Your task to perform on an android device: Search for "logitech g933" on bestbuy, select the first entry, and add it to the cart. Image 0: 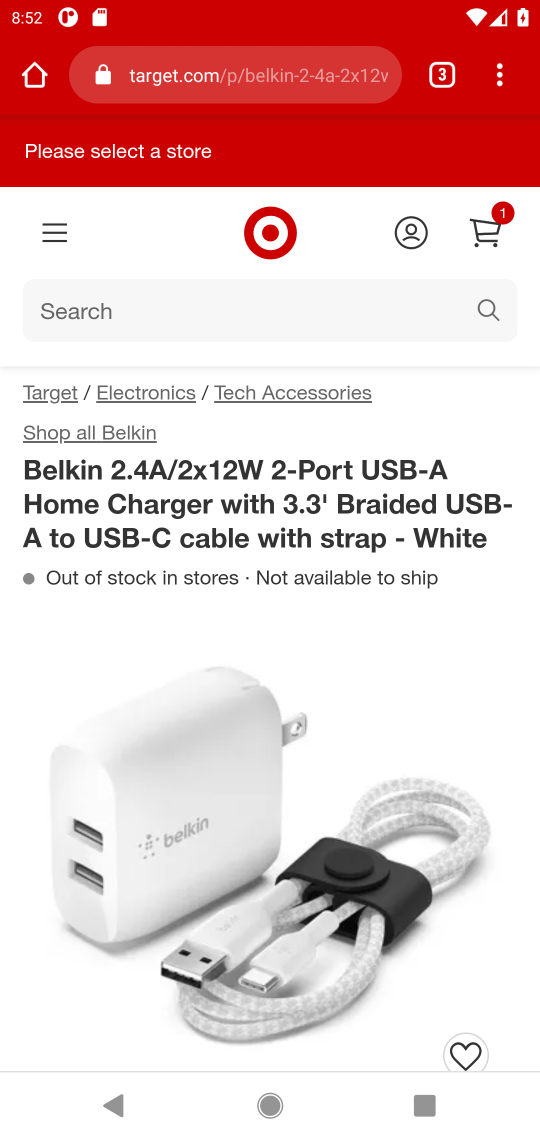
Step 0: press home button
Your task to perform on an android device: Search for "logitech g933" on bestbuy, select the first entry, and add it to the cart. Image 1: 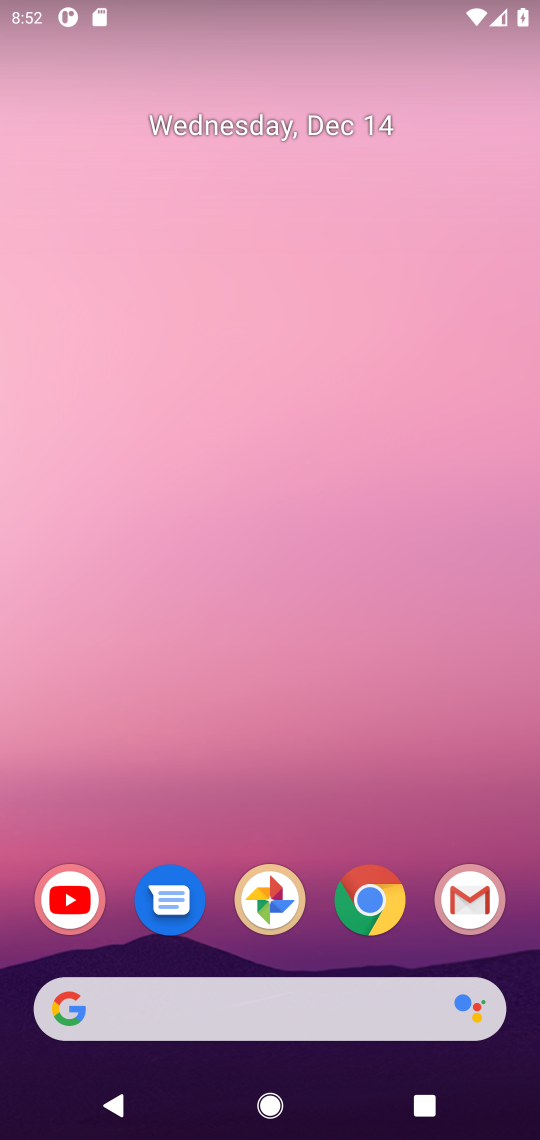
Step 1: click (271, 983)
Your task to perform on an android device: Search for "logitech g933" on bestbuy, select the first entry, and add it to the cart. Image 2: 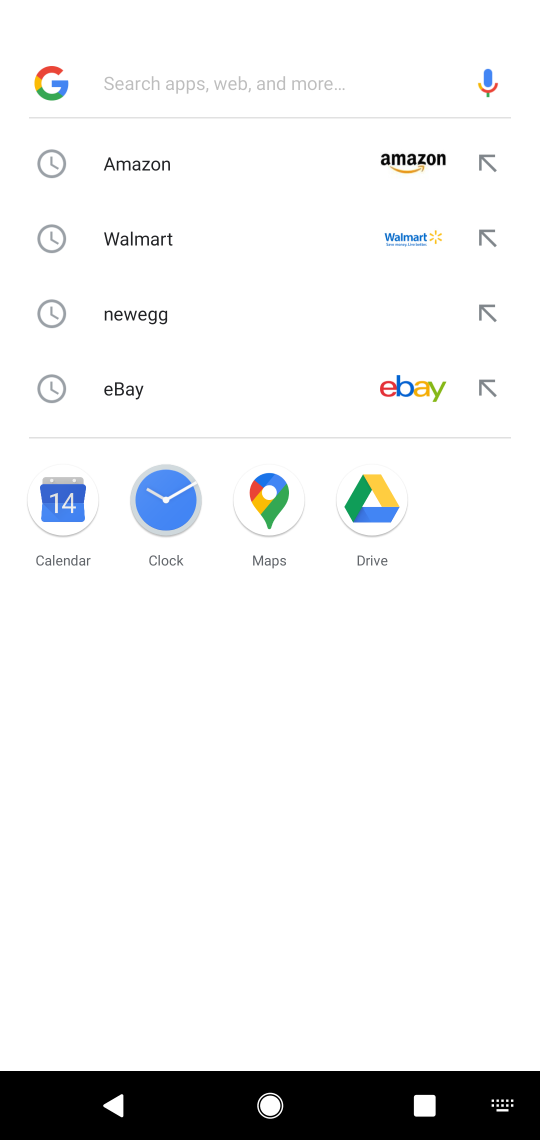
Step 2: type "bestbuy"
Your task to perform on an android device: Search for "logitech g933" on bestbuy, select the first entry, and add it to the cart. Image 3: 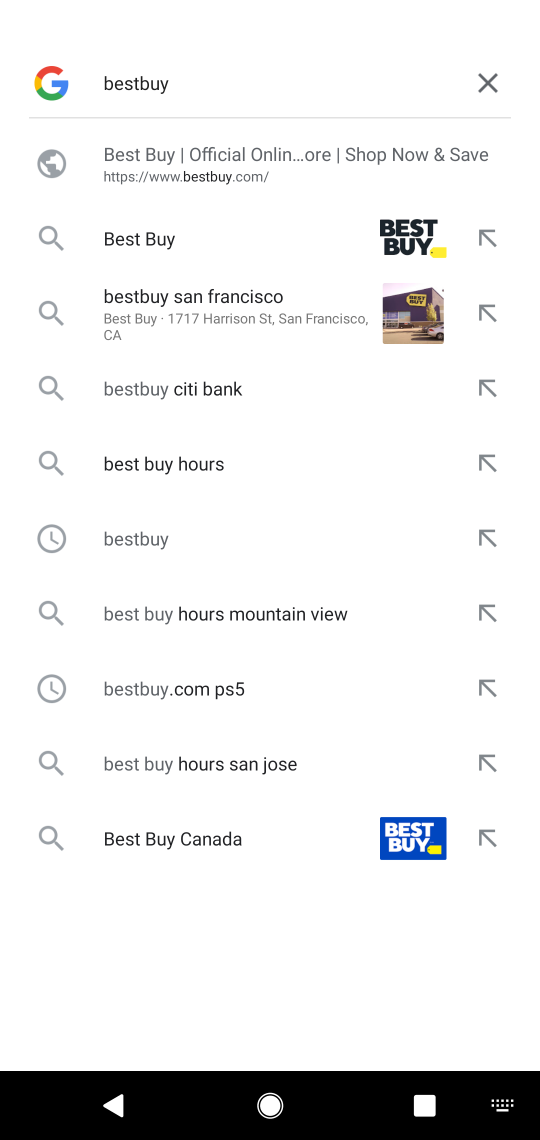
Step 3: type ""
Your task to perform on an android device: Search for "logitech g933" on bestbuy, select the first entry, and add it to the cart. Image 4: 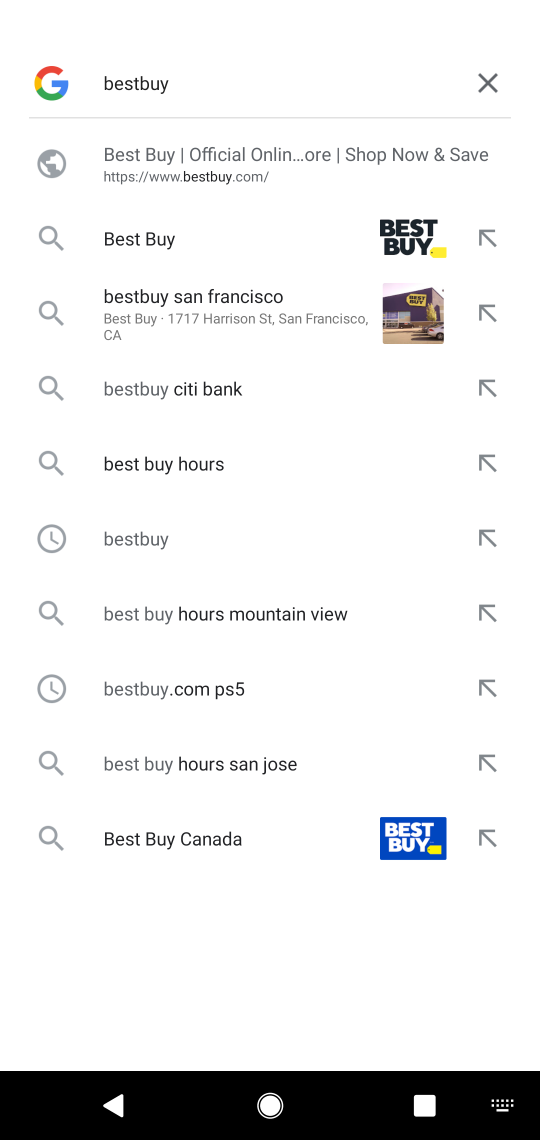
Step 4: click (184, 256)
Your task to perform on an android device: Search for "logitech g933" on bestbuy, select the first entry, and add it to the cart. Image 5: 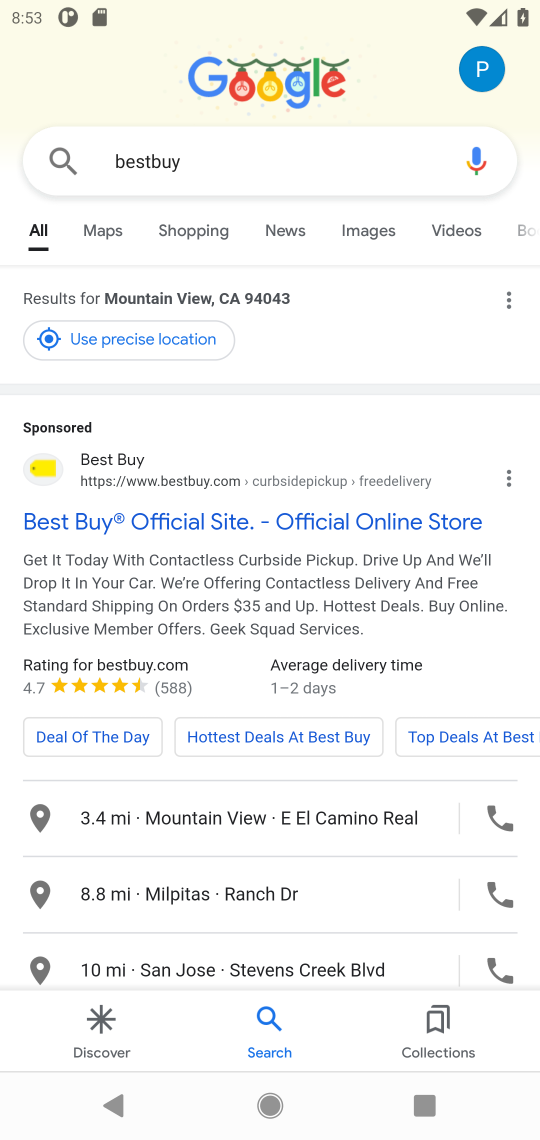
Step 5: click (116, 505)
Your task to perform on an android device: Search for "logitech g933" on bestbuy, select the first entry, and add it to the cart. Image 6: 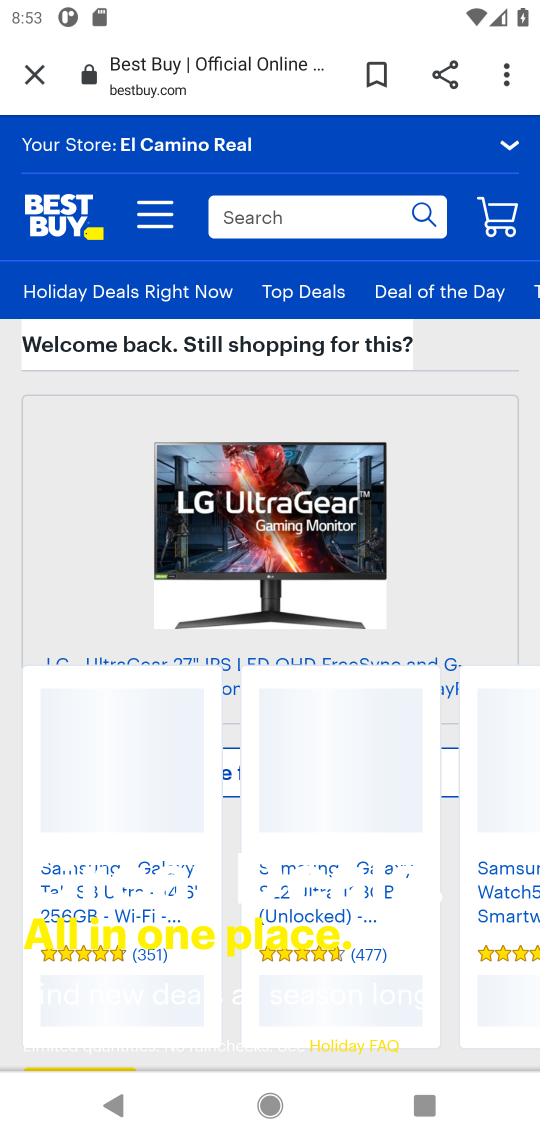
Step 6: click (283, 235)
Your task to perform on an android device: Search for "logitech g933" on bestbuy, select the first entry, and add it to the cart. Image 7: 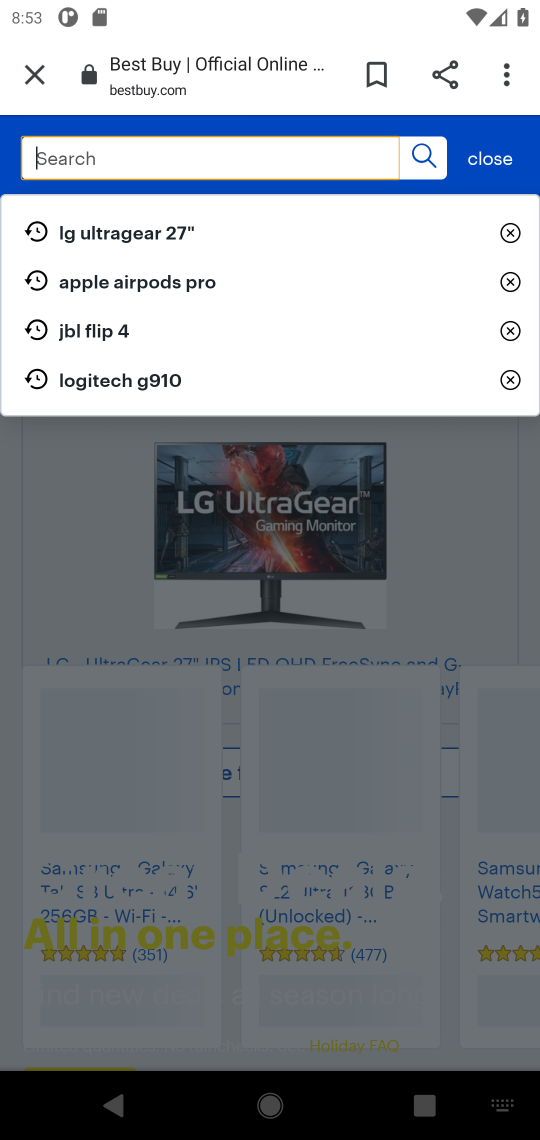
Step 7: type "logitech g933"
Your task to perform on an android device: Search for "logitech g933" on bestbuy, select the first entry, and add it to the cart. Image 8: 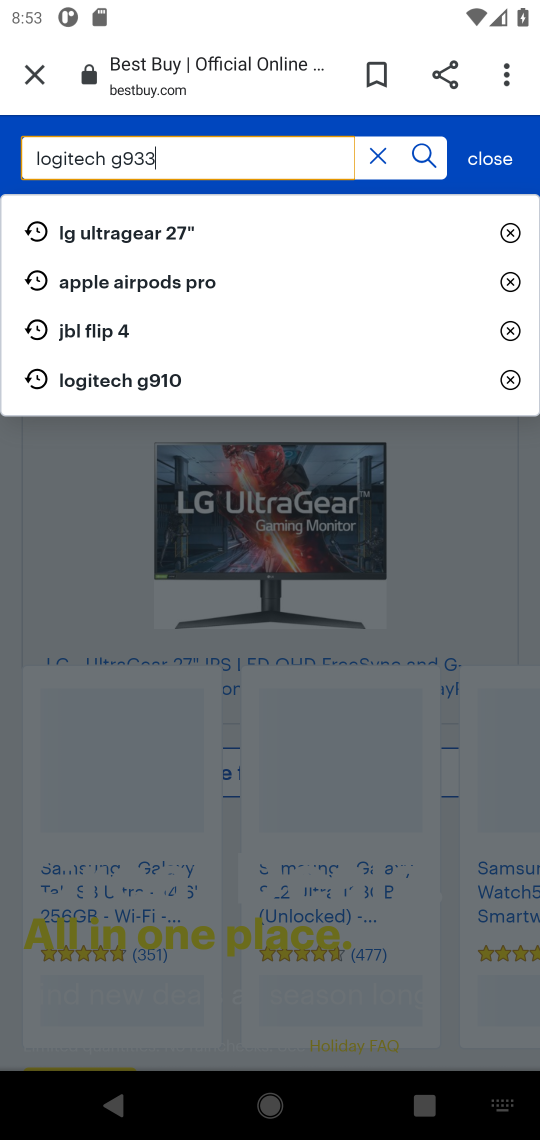
Step 8: type ""
Your task to perform on an android device: Search for "logitech g933" on bestbuy, select the first entry, and add it to the cart. Image 9: 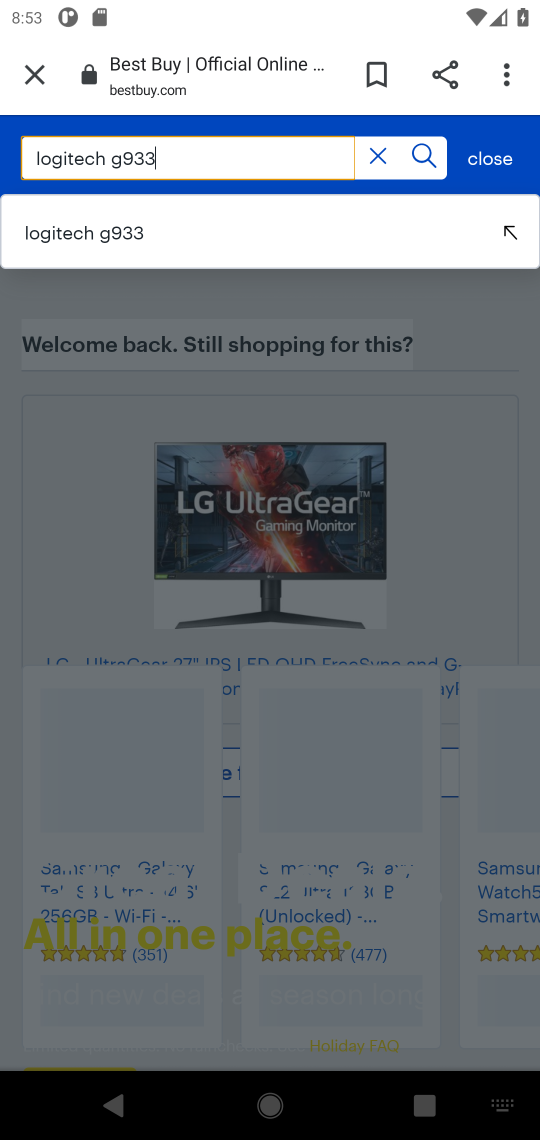
Step 9: click (195, 231)
Your task to perform on an android device: Search for "logitech g933" on bestbuy, select the first entry, and add it to the cart. Image 10: 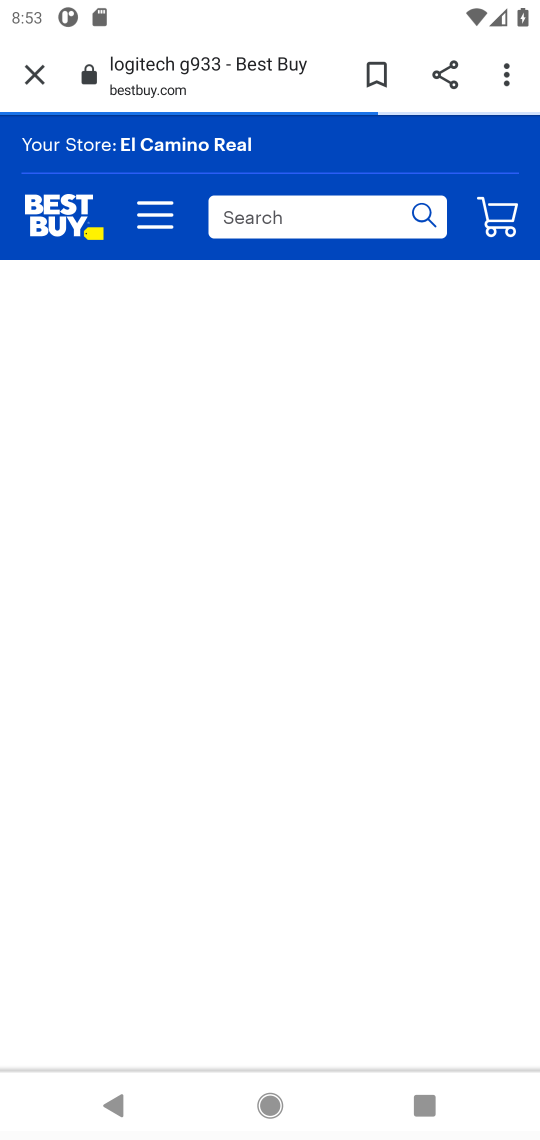
Step 10: click (422, 172)
Your task to perform on an android device: Search for "logitech g933" on bestbuy, select the first entry, and add it to the cart. Image 11: 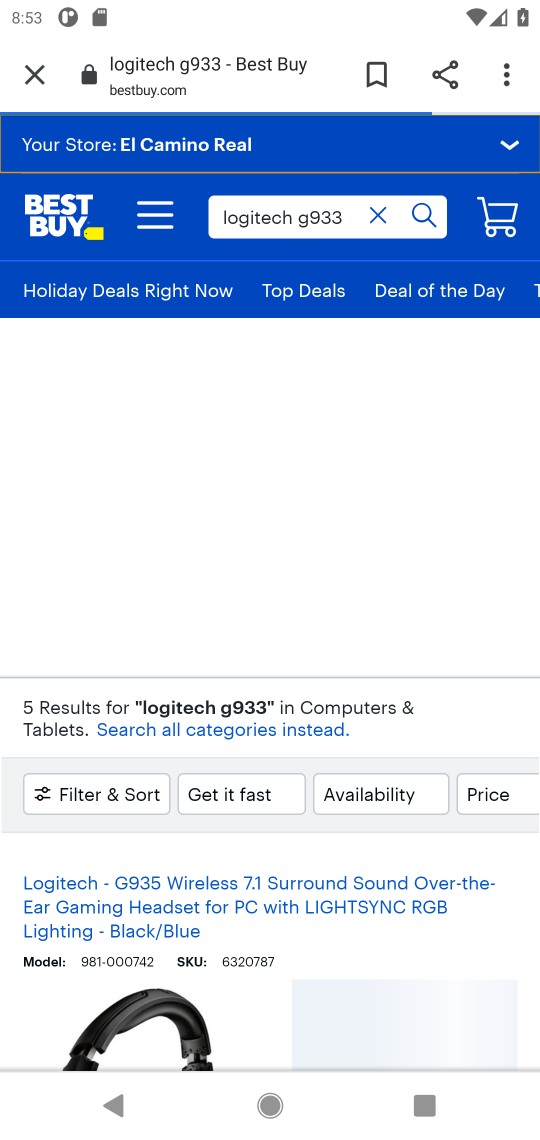
Step 11: drag from (362, 921) to (342, 8)
Your task to perform on an android device: Search for "logitech g933" on bestbuy, select the first entry, and add it to the cart. Image 12: 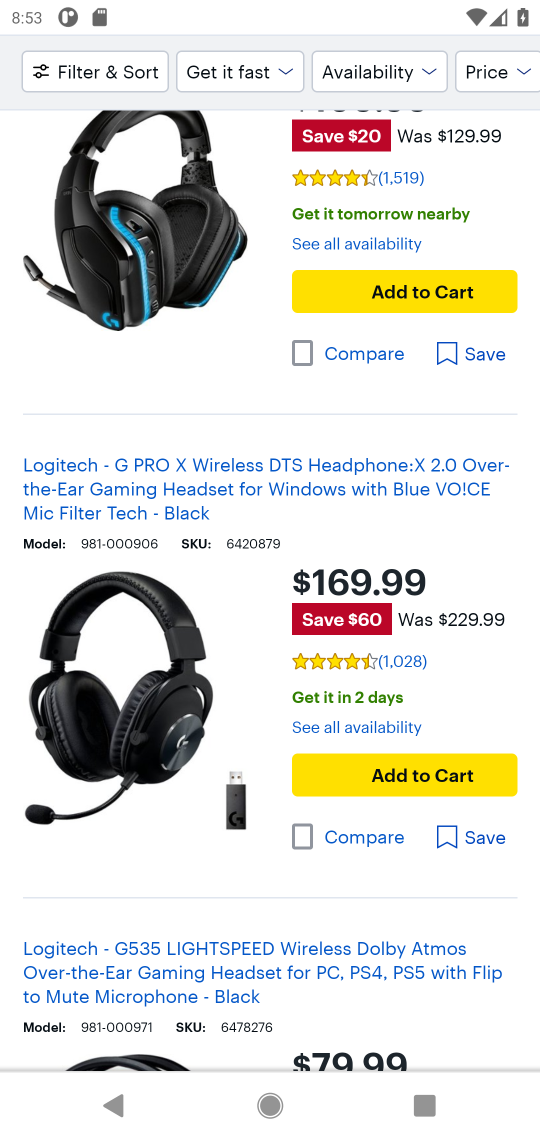
Step 12: click (432, 292)
Your task to perform on an android device: Search for "logitech g933" on bestbuy, select the first entry, and add it to the cart. Image 13: 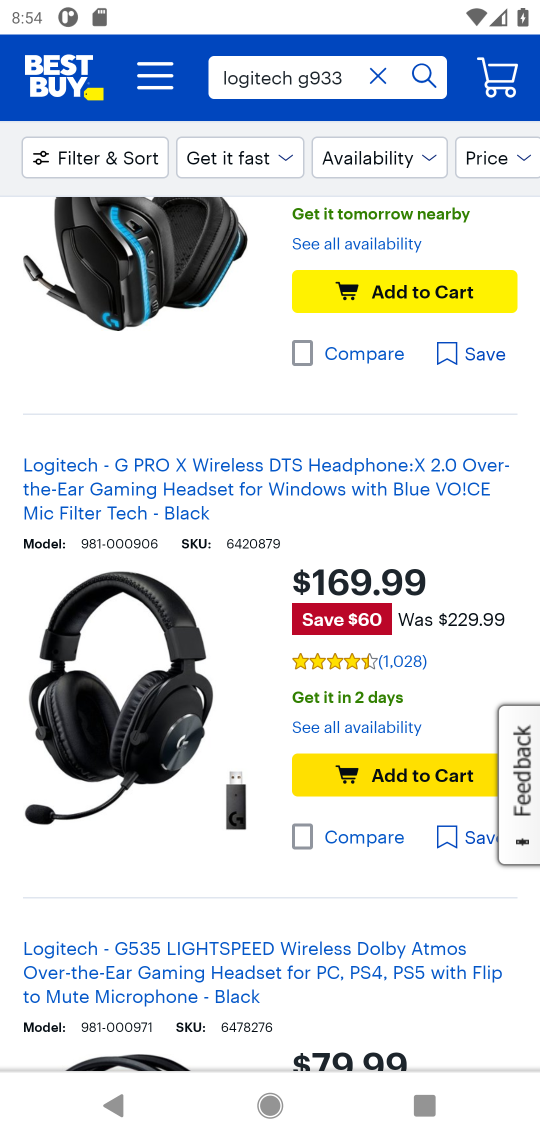
Step 13: drag from (256, 318) to (202, 830)
Your task to perform on an android device: Search for "logitech g933" on bestbuy, select the first entry, and add it to the cart. Image 14: 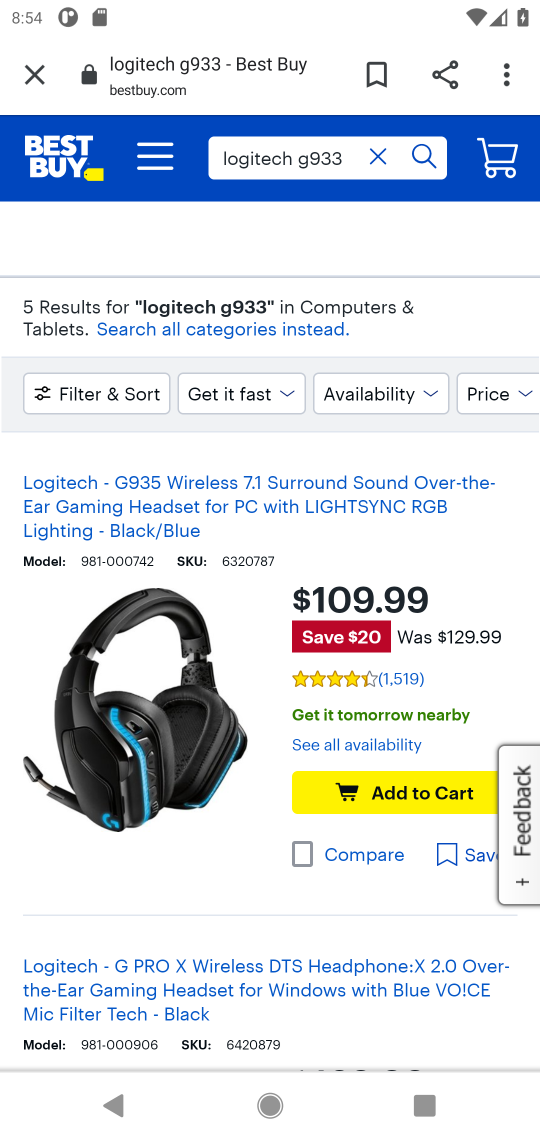
Step 14: click (401, 794)
Your task to perform on an android device: Search for "logitech g933" on bestbuy, select the first entry, and add it to the cart. Image 15: 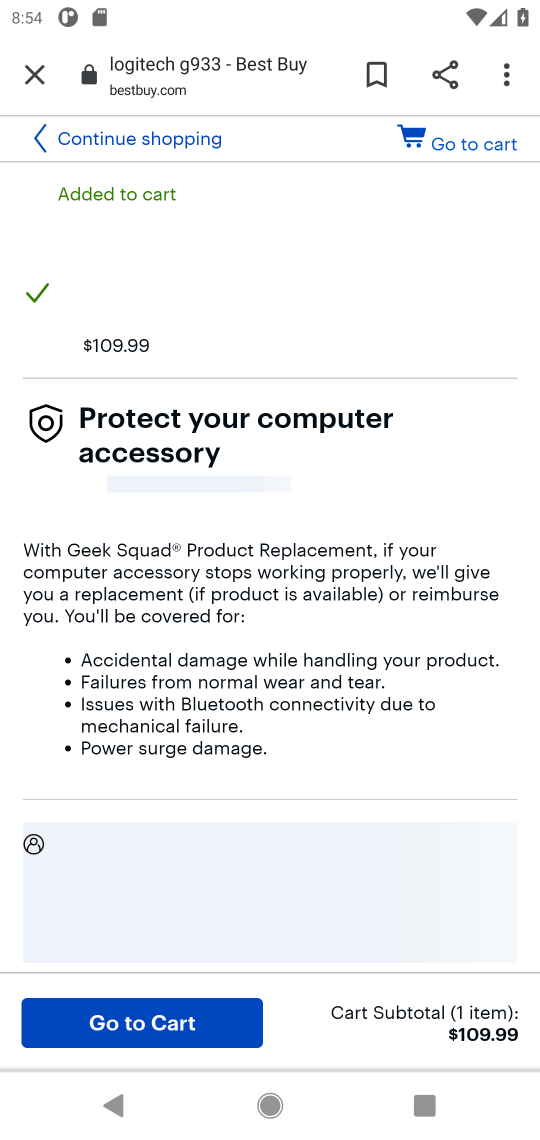
Step 15: click (132, 1008)
Your task to perform on an android device: Search for "logitech g933" on bestbuy, select the first entry, and add it to the cart. Image 16: 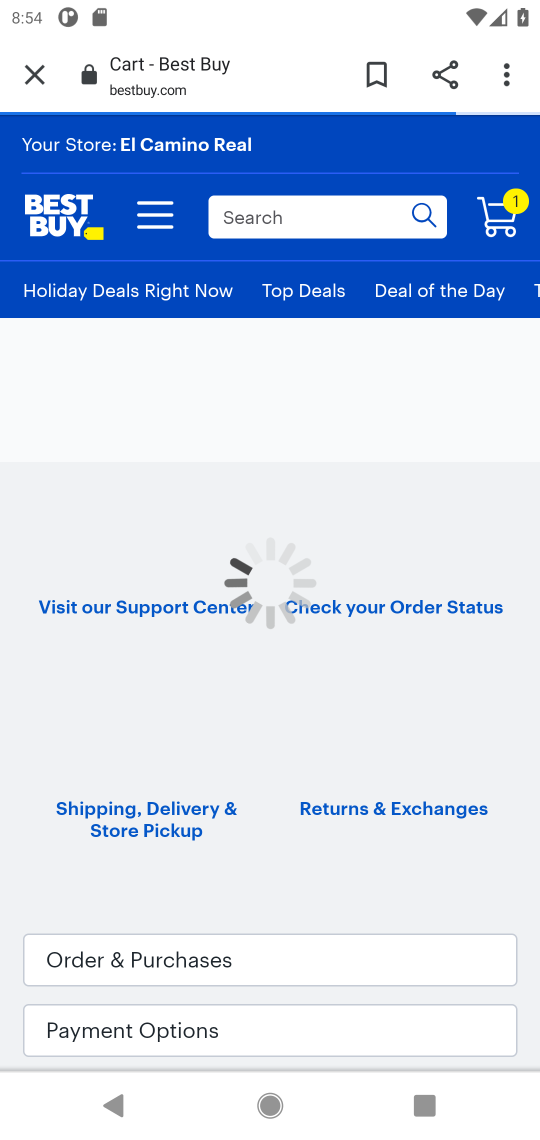
Step 16: task complete